Your task to perform on an android device: Open settings Image 0: 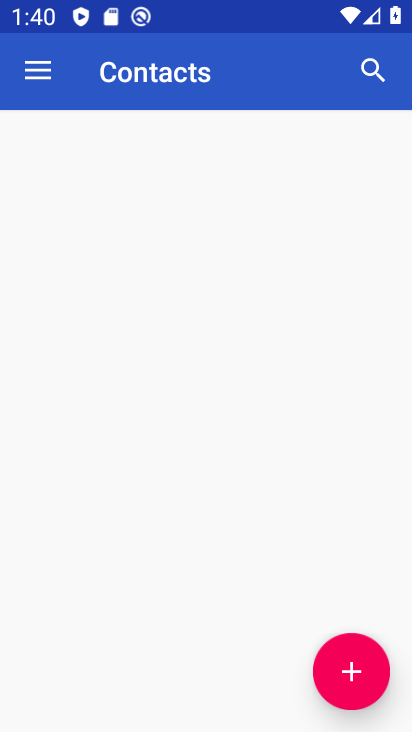
Step 0: drag from (176, 684) to (14, 295)
Your task to perform on an android device: Open settings Image 1: 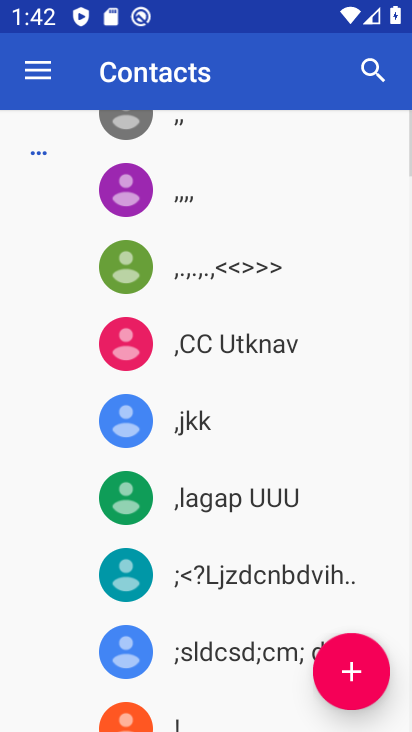
Step 1: press home button
Your task to perform on an android device: Open settings Image 2: 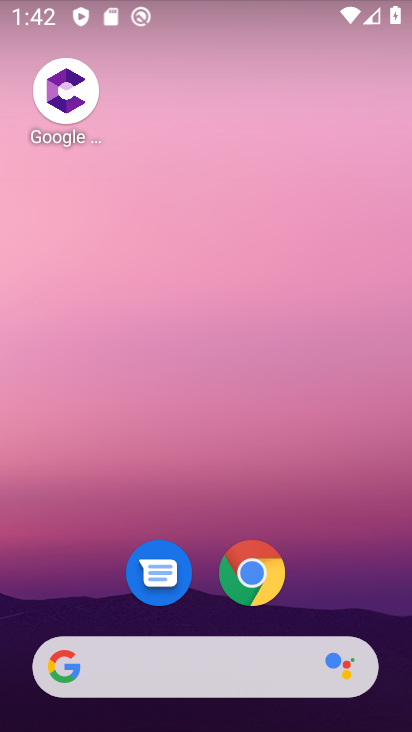
Step 2: drag from (168, 663) to (161, 255)
Your task to perform on an android device: Open settings Image 3: 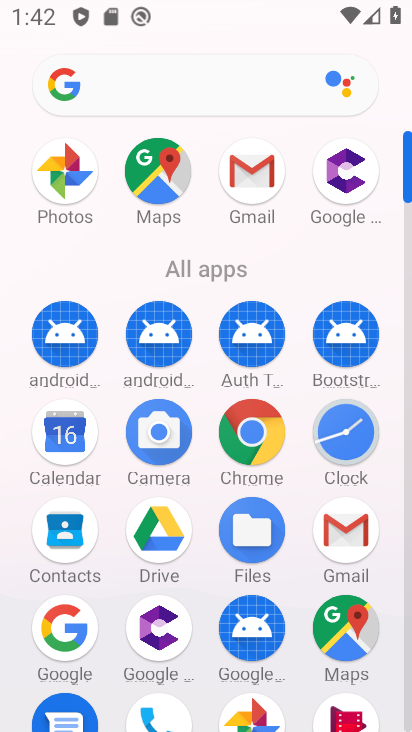
Step 3: drag from (226, 626) to (209, 28)
Your task to perform on an android device: Open settings Image 4: 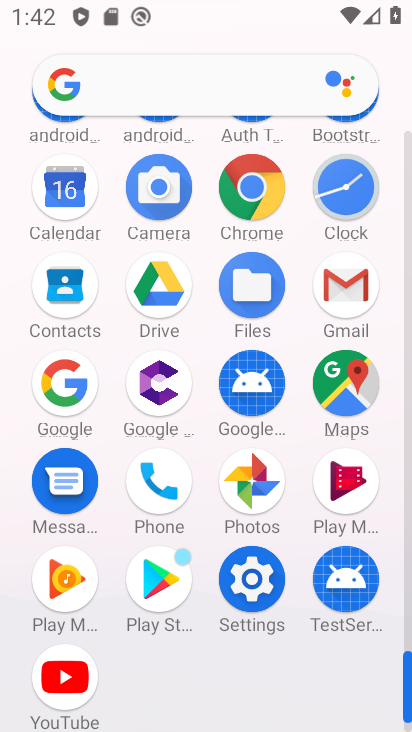
Step 4: click (238, 582)
Your task to perform on an android device: Open settings Image 5: 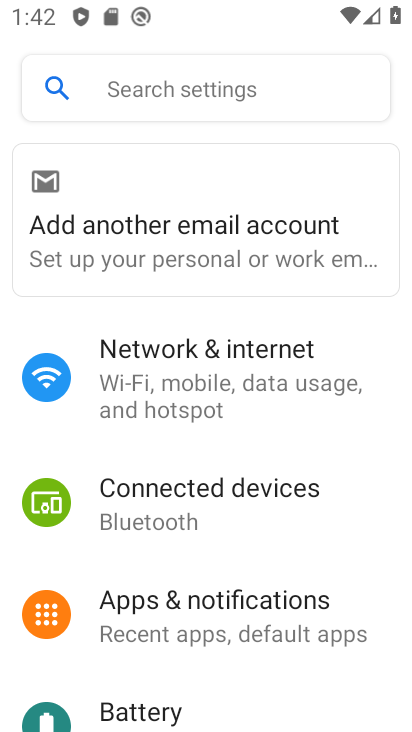
Step 5: task complete